Your task to perform on an android device: Open calendar and show me the fourth week of next month Image 0: 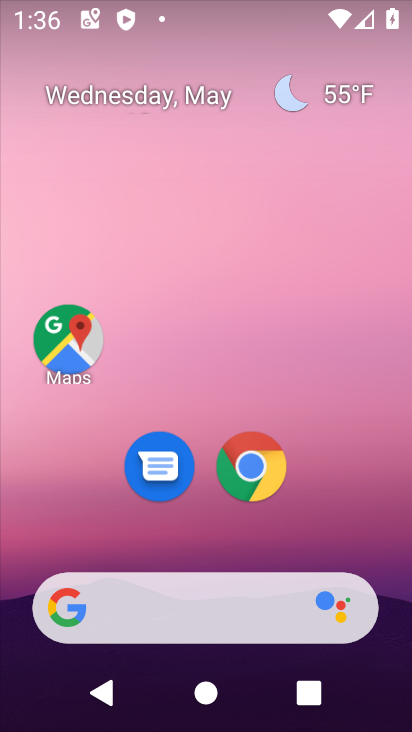
Step 0: drag from (179, 540) to (66, 114)
Your task to perform on an android device: Open calendar and show me the fourth week of next month Image 1: 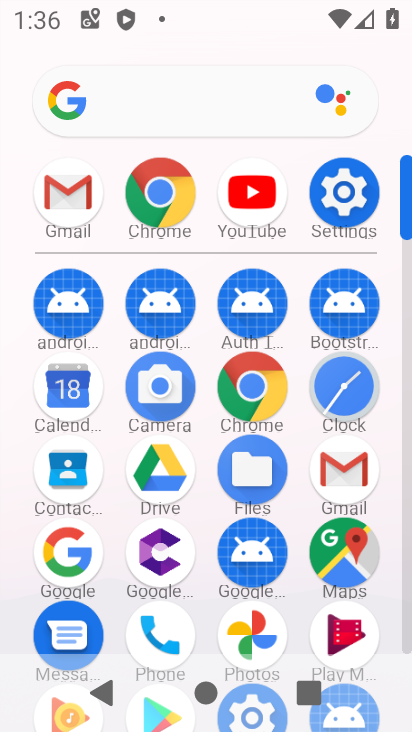
Step 1: click (76, 387)
Your task to perform on an android device: Open calendar and show me the fourth week of next month Image 2: 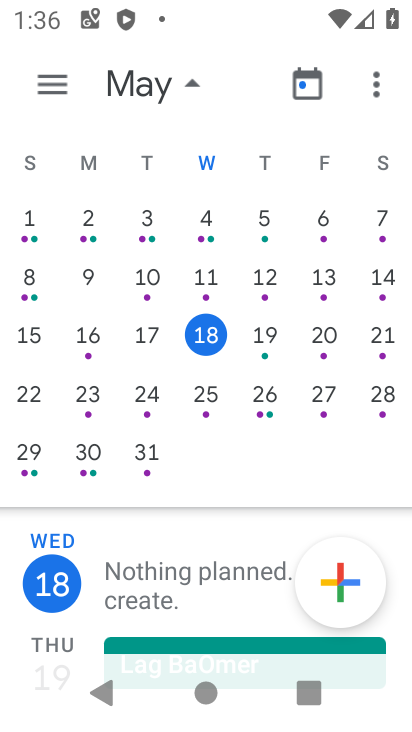
Step 2: drag from (394, 314) to (0, 315)
Your task to perform on an android device: Open calendar and show me the fourth week of next month Image 3: 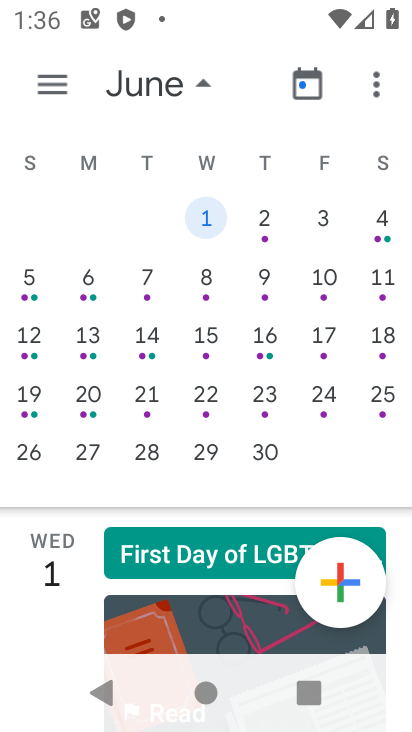
Step 3: click (43, 394)
Your task to perform on an android device: Open calendar and show me the fourth week of next month Image 4: 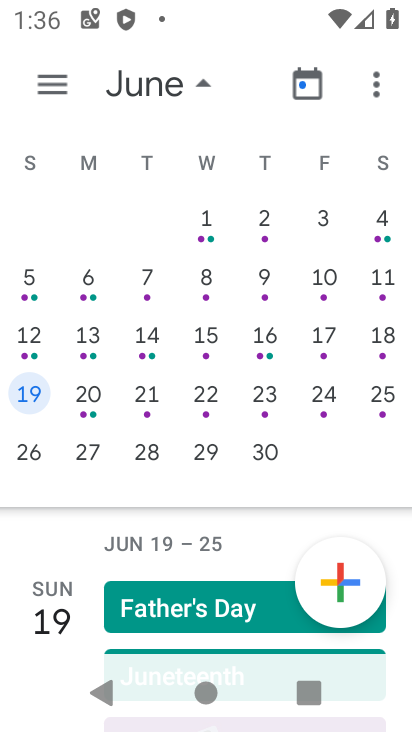
Step 4: task complete